Your task to perform on an android device: What's the weather going to be this weekend? Image 0: 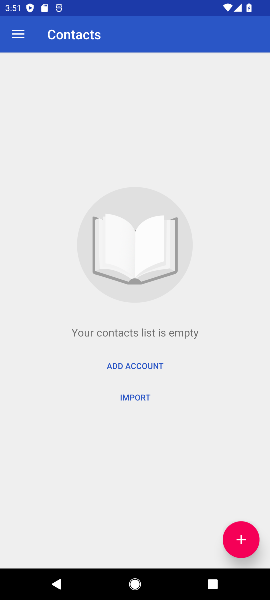
Step 0: press home button
Your task to perform on an android device: What's the weather going to be this weekend? Image 1: 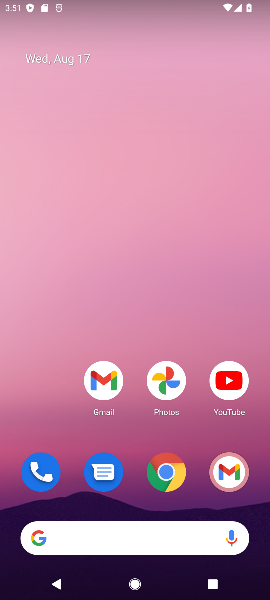
Step 1: drag from (127, 428) to (129, 3)
Your task to perform on an android device: What's the weather going to be this weekend? Image 2: 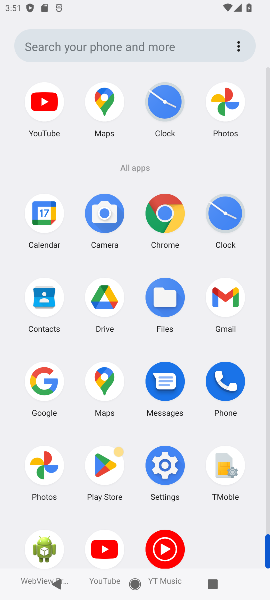
Step 2: click (57, 385)
Your task to perform on an android device: What's the weather going to be this weekend? Image 3: 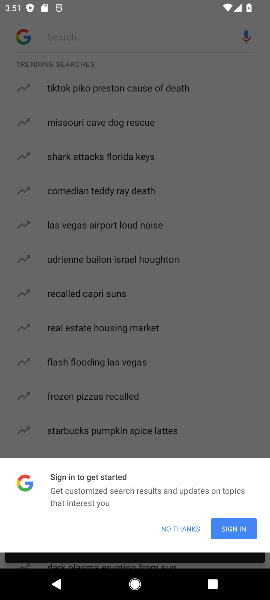
Step 3: click (189, 531)
Your task to perform on an android device: What's the weather going to be this weekend? Image 4: 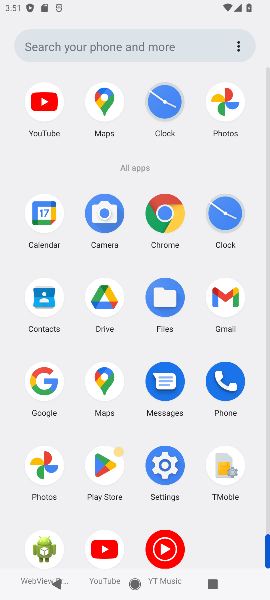
Step 4: click (41, 395)
Your task to perform on an android device: What's the weather going to be this weekend? Image 5: 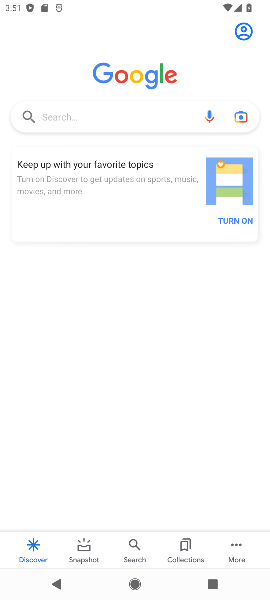
Step 5: click (78, 121)
Your task to perform on an android device: What's the weather going to be this weekend? Image 6: 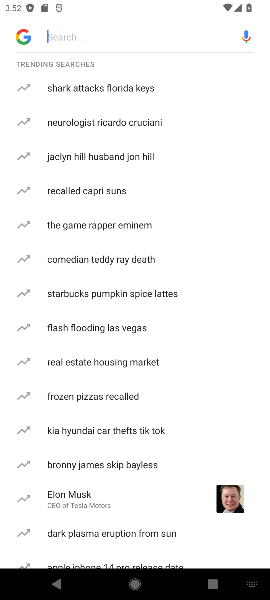
Step 6: type "weather"
Your task to perform on an android device: What's the weather going to be this weekend? Image 7: 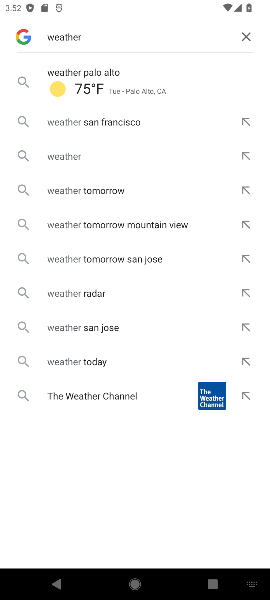
Step 7: click (138, 88)
Your task to perform on an android device: What's the weather going to be this weekend? Image 8: 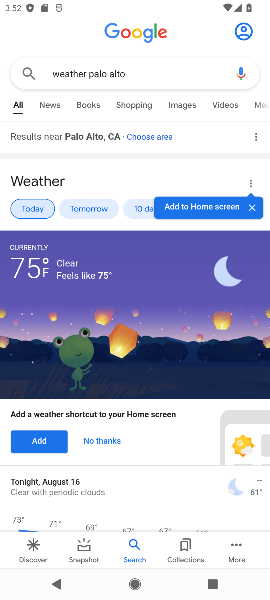
Step 8: click (142, 211)
Your task to perform on an android device: What's the weather going to be this weekend? Image 9: 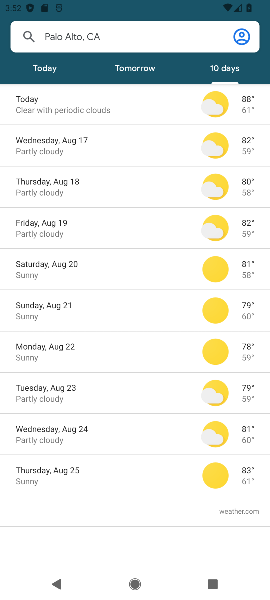
Step 9: task complete